Your task to perform on an android device: What's on the menu at Cheesecake Factory? Image 0: 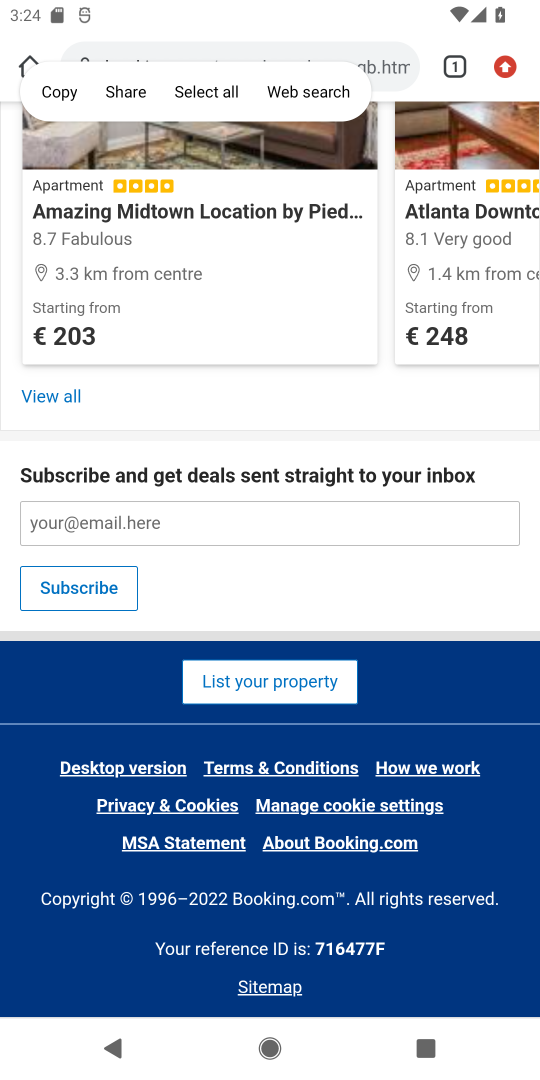
Step 0: click (387, 64)
Your task to perform on an android device: What's on the menu at Cheesecake Factory? Image 1: 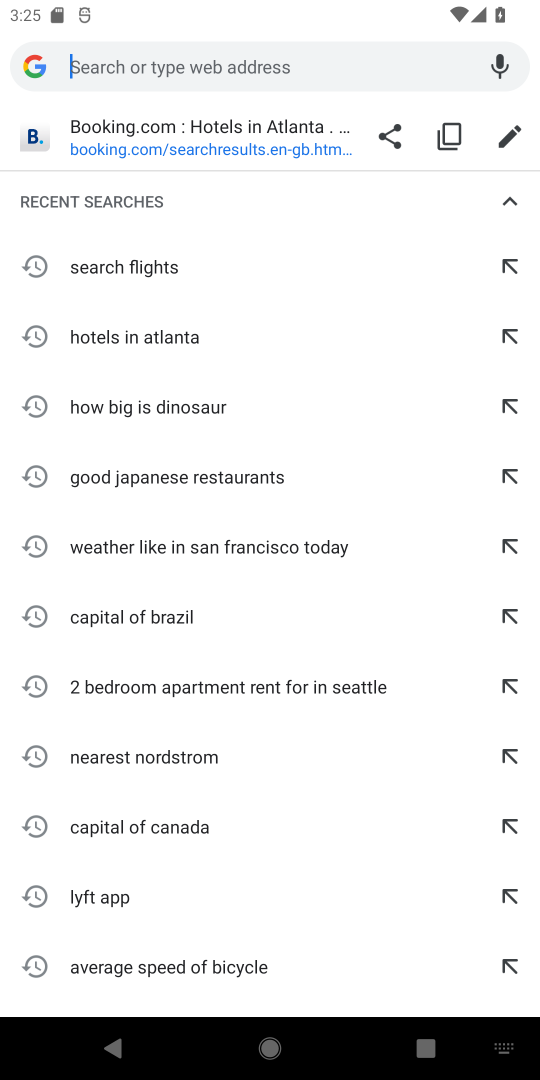
Step 1: type "cheesecake factory"
Your task to perform on an android device: What's on the menu at Cheesecake Factory? Image 2: 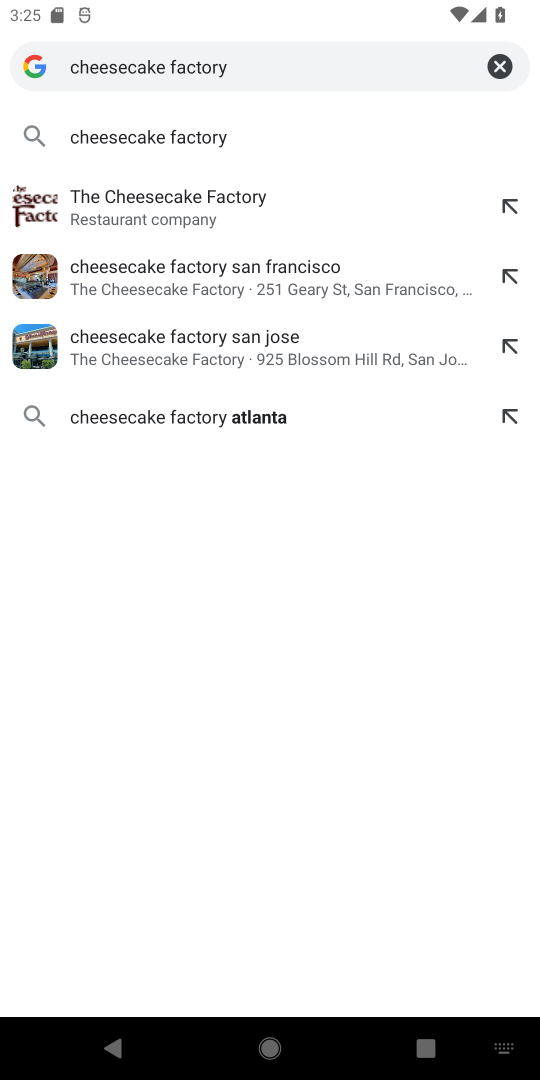
Step 2: click (182, 216)
Your task to perform on an android device: What's on the menu at Cheesecake Factory? Image 3: 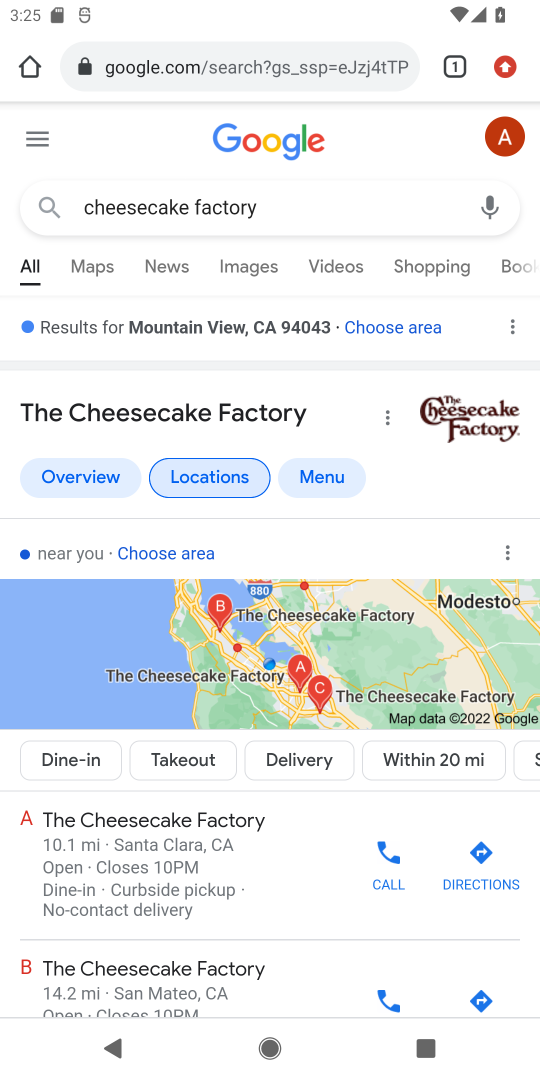
Step 3: click (135, 820)
Your task to perform on an android device: What's on the menu at Cheesecake Factory? Image 4: 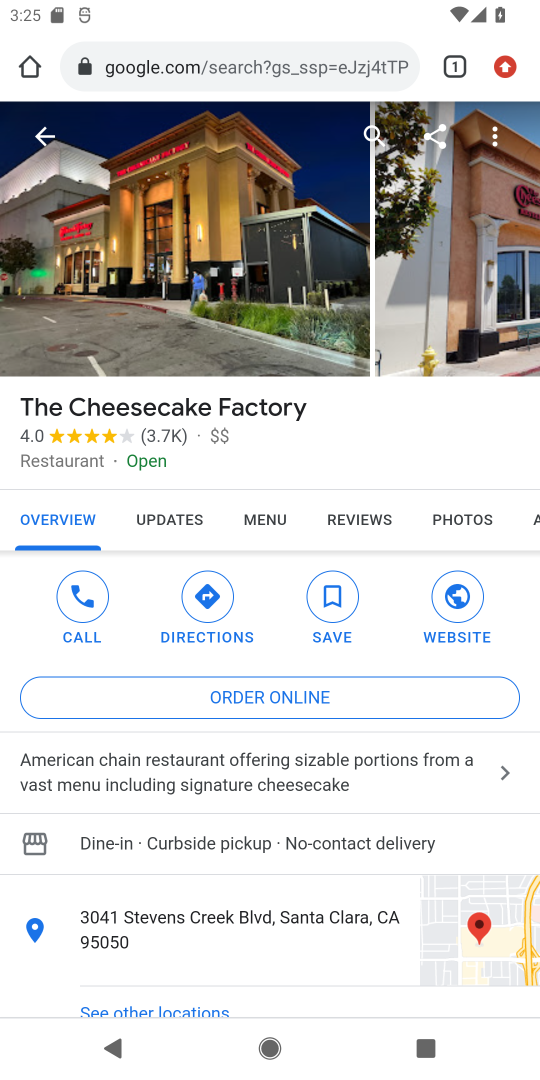
Step 4: click (266, 513)
Your task to perform on an android device: What's on the menu at Cheesecake Factory? Image 5: 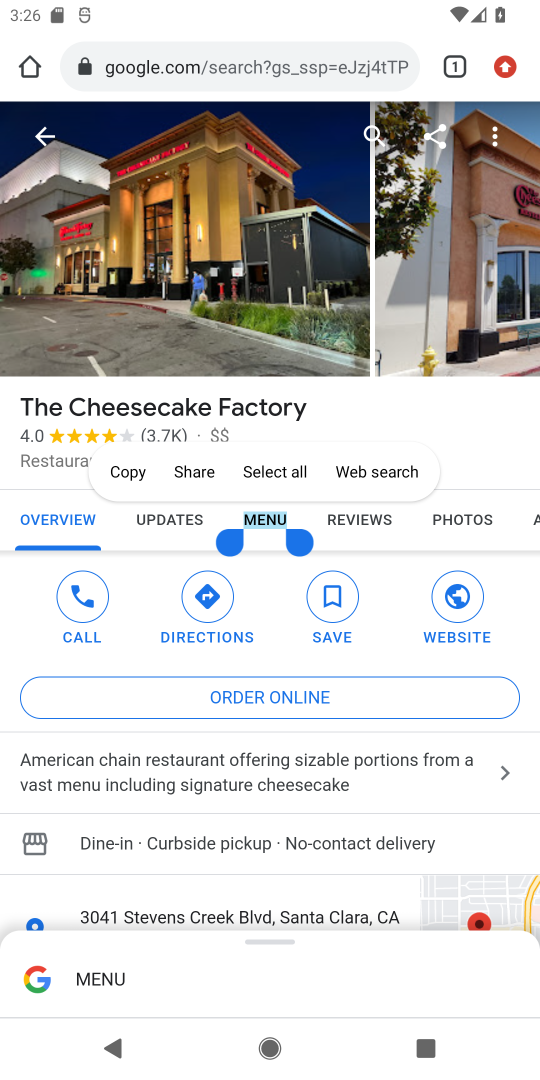
Step 5: drag from (285, 792) to (368, 226)
Your task to perform on an android device: What's on the menu at Cheesecake Factory? Image 6: 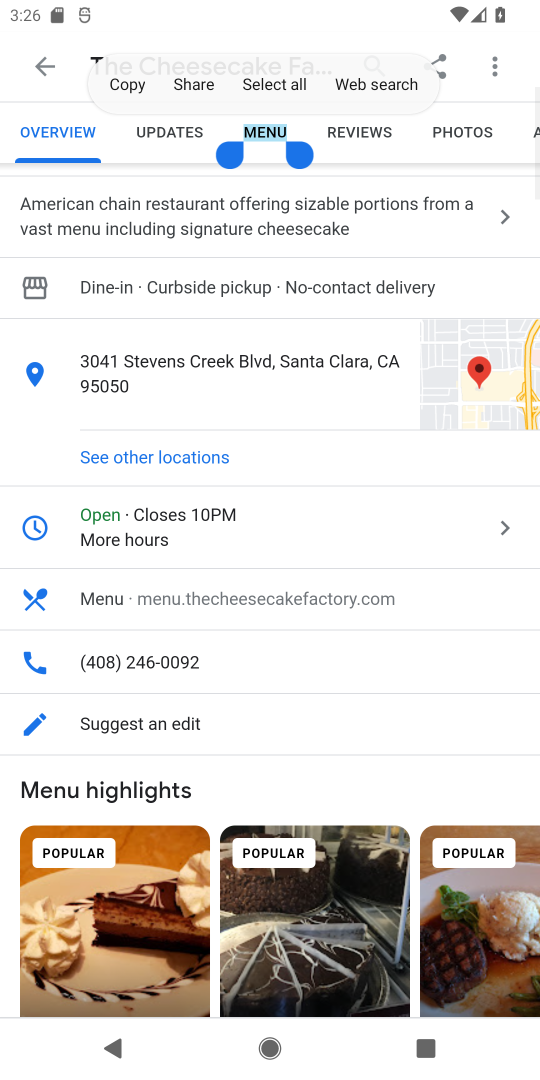
Step 6: drag from (309, 749) to (403, 215)
Your task to perform on an android device: What's on the menu at Cheesecake Factory? Image 7: 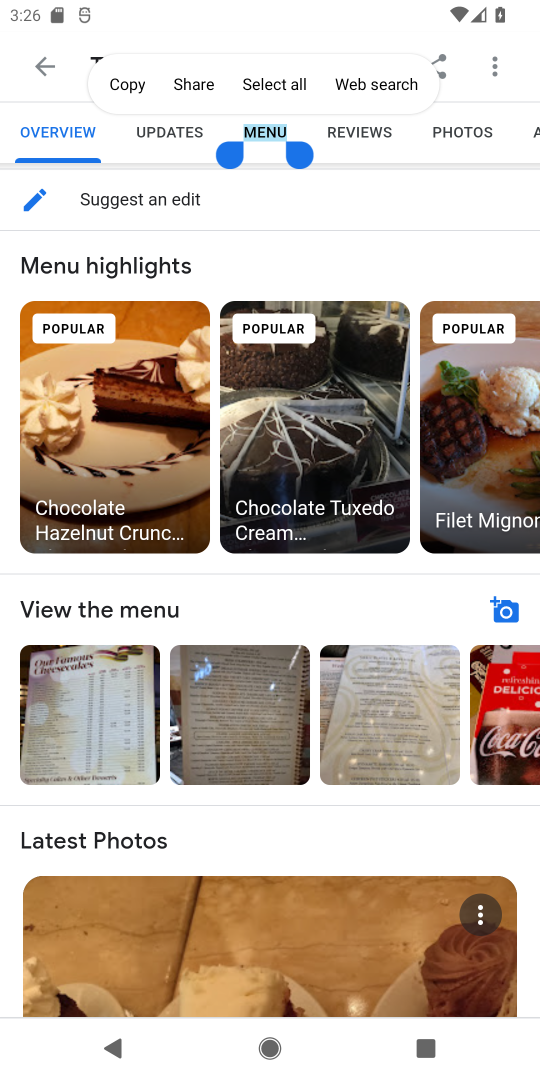
Step 7: drag from (366, 465) to (366, 389)
Your task to perform on an android device: What's on the menu at Cheesecake Factory? Image 8: 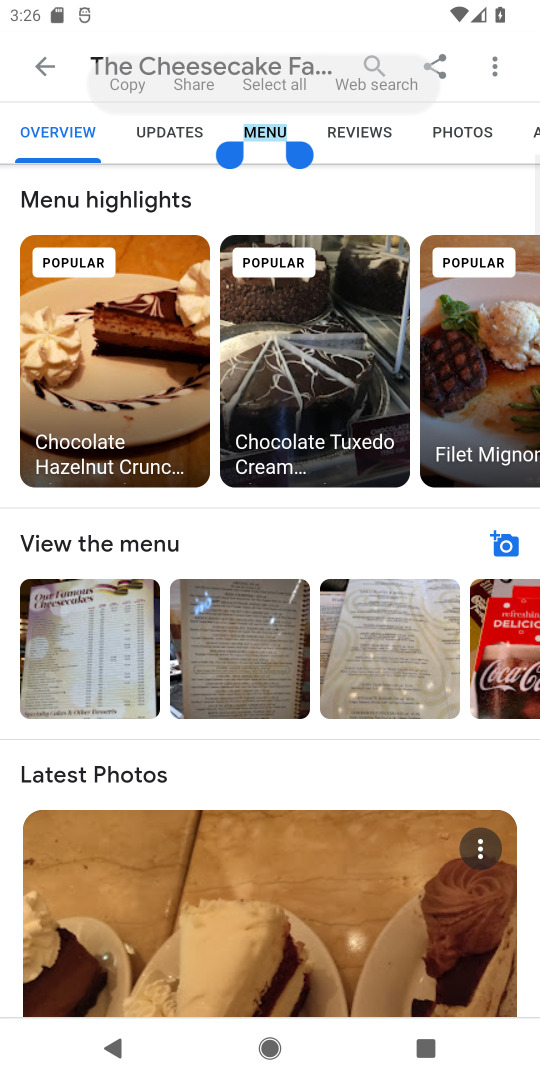
Step 8: drag from (307, 635) to (331, 461)
Your task to perform on an android device: What's on the menu at Cheesecake Factory? Image 9: 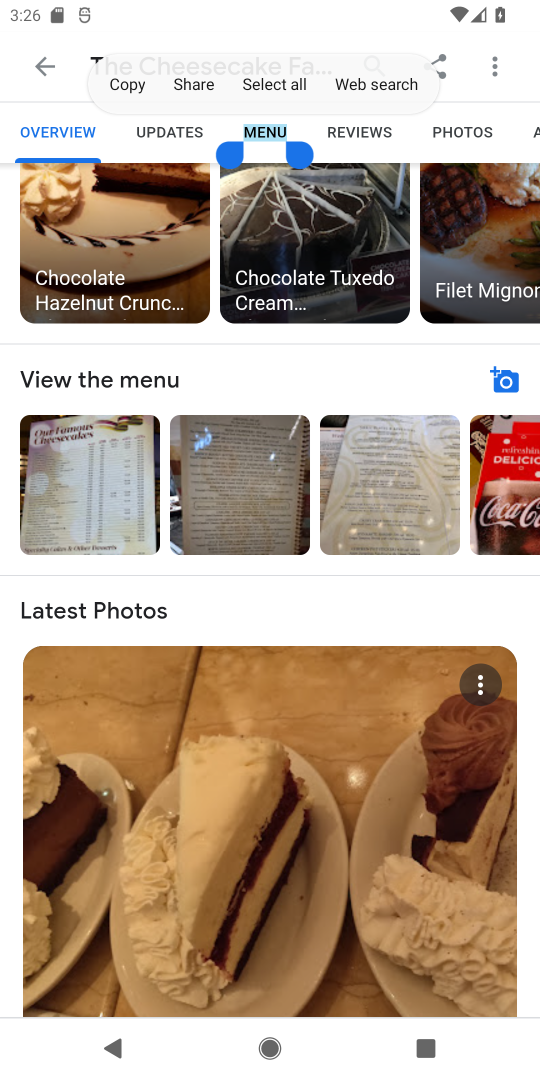
Step 9: drag from (242, 746) to (255, 441)
Your task to perform on an android device: What's on the menu at Cheesecake Factory? Image 10: 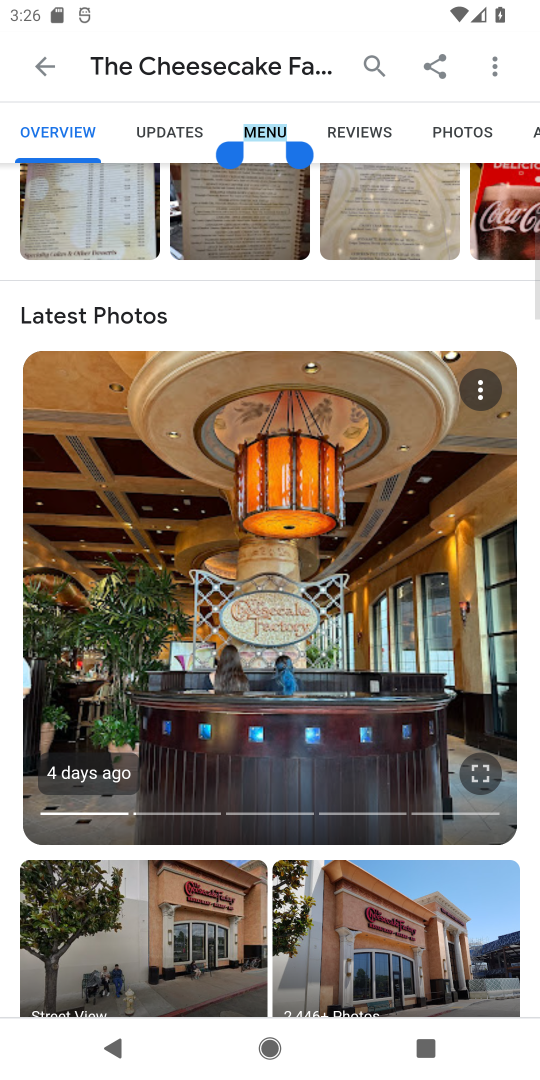
Step 10: drag from (256, 568) to (280, 332)
Your task to perform on an android device: What's on the menu at Cheesecake Factory? Image 11: 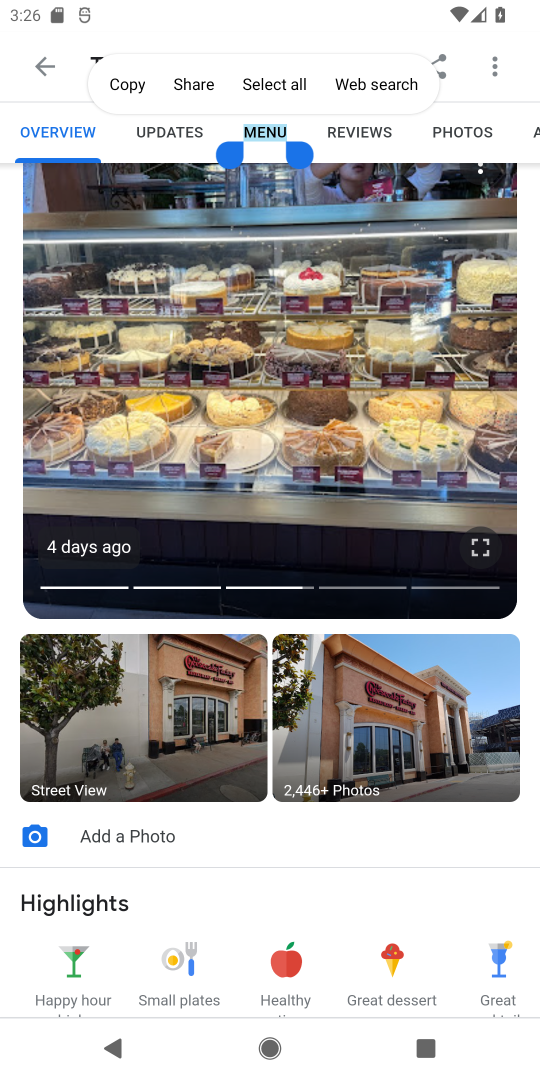
Step 11: drag from (301, 666) to (310, 1022)
Your task to perform on an android device: What's on the menu at Cheesecake Factory? Image 12: 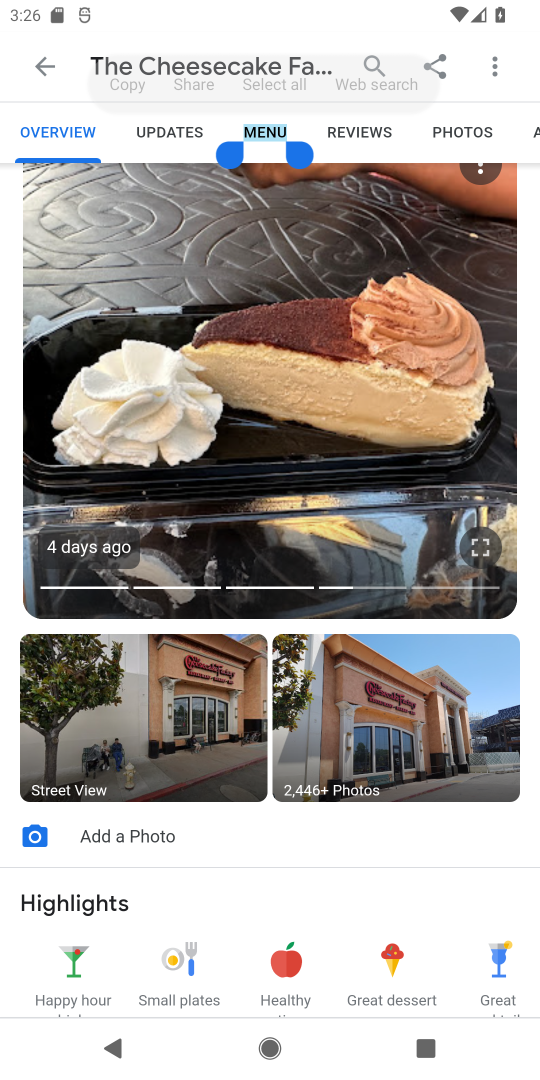
Step 12: drag from (289, 707) to (315, 1034)
Your task to perform on an android device: What's on the menu at Cheesecake Factory? Image 13: 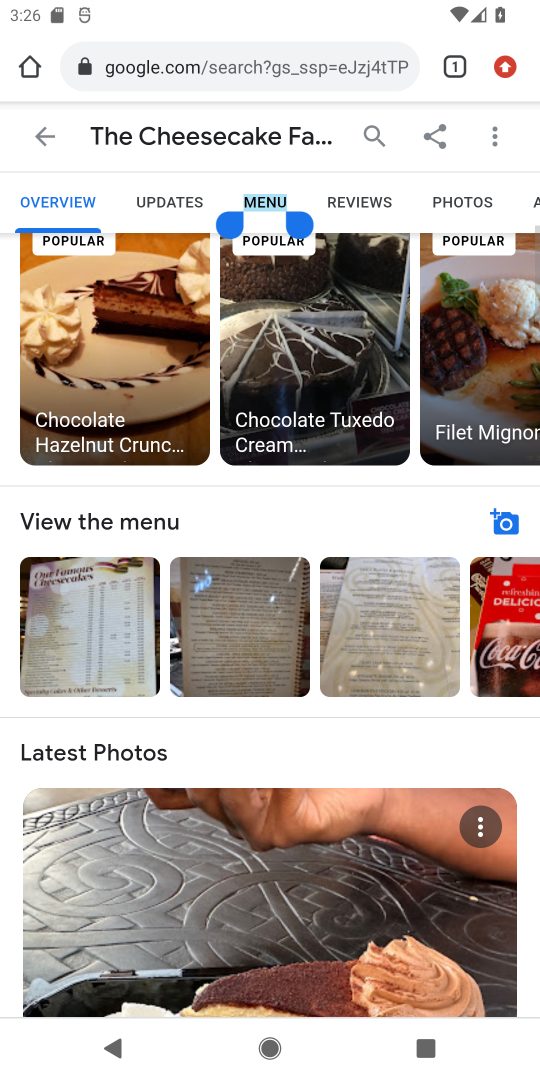
Step 13: drag from (310, 557) to (196, 1057)
Your task to perform on an android device: What's on the menu at Cheesecake Factory? Image 14: 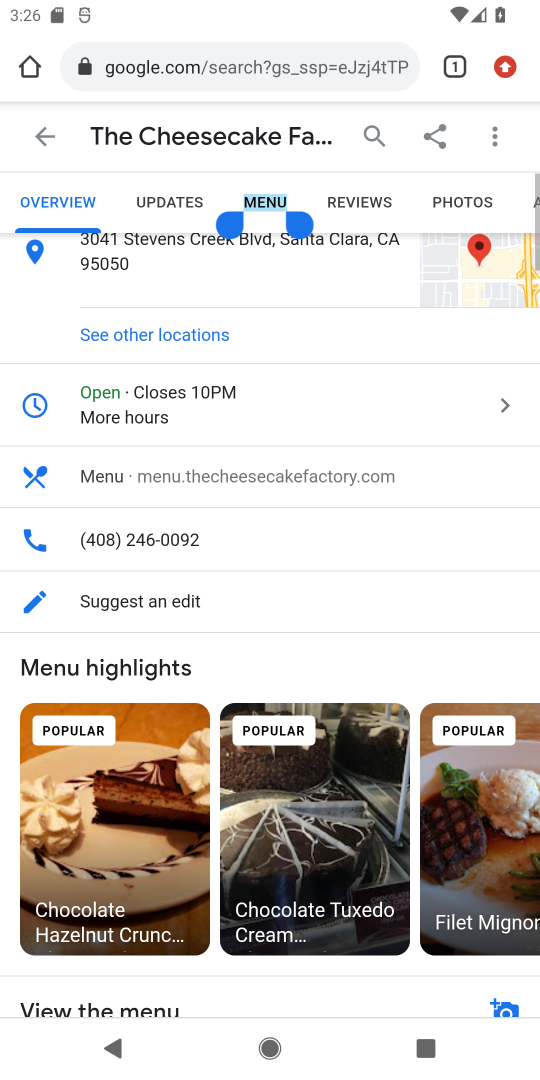
Step 14: drag from (339, 685) to (354, 1064)
Your task to perform on an android device: What's on the menu at Cheesecake Factory? Image 15: 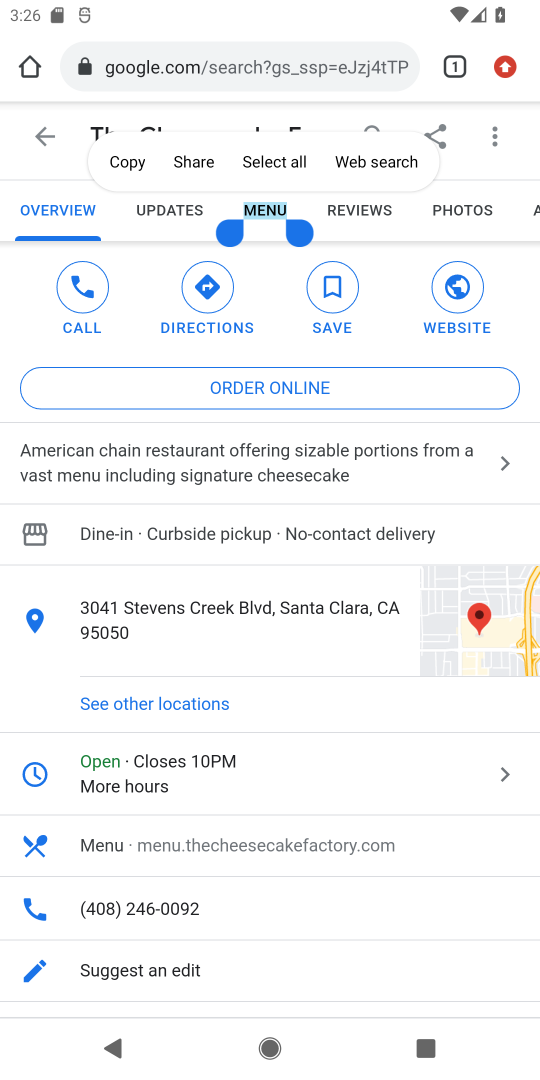
Step 15: click (208, 845)
Your task to perform on an android device: What's on the menu at Cheesecake Factory? Image 16: 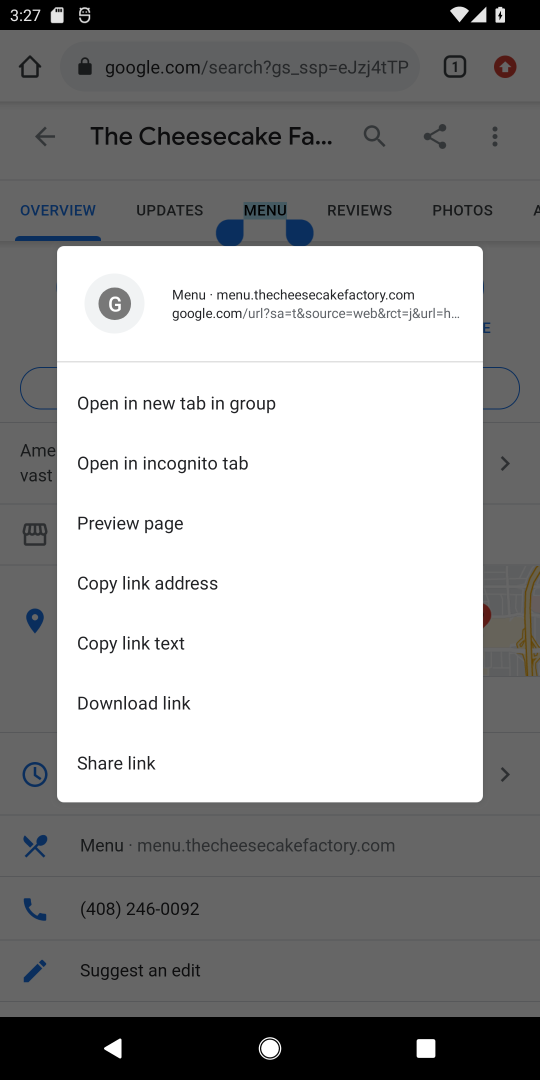
Step 16: drag from (539, 796) to (538, 735)
Your task to perform on an android device: What's on the menu at Cheesecake Factory? Image 17: 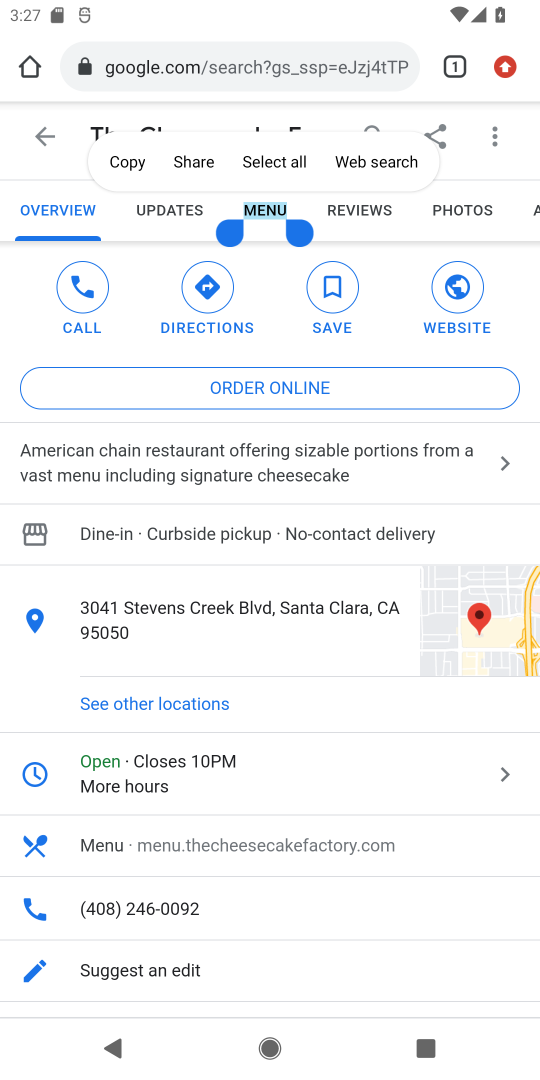
Step 17: drag from (351, 875) to (364, 281)
Your task to perform on an android device: What's on the menu at Cheesecake Factory? Image 18: 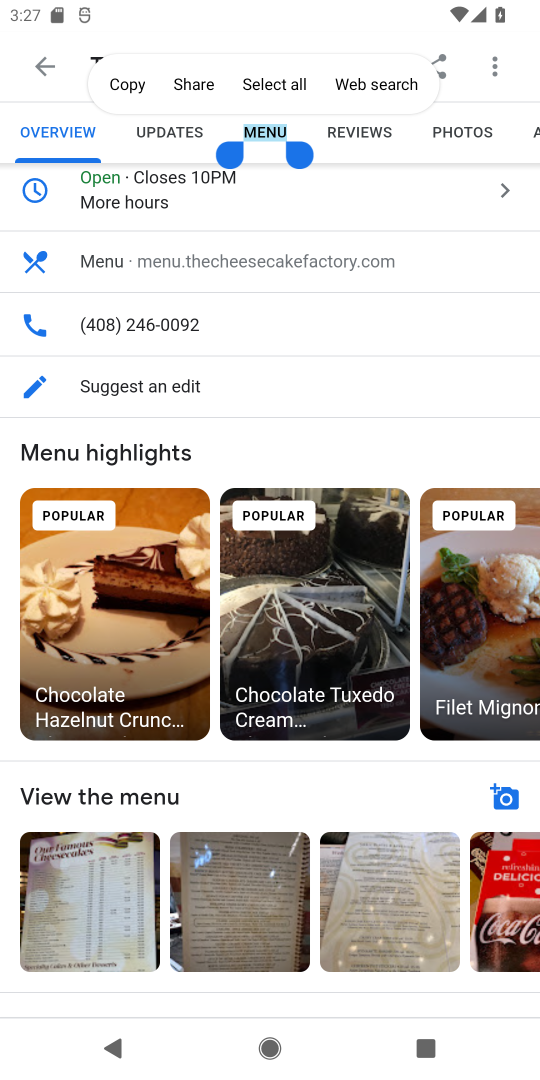
Step 18: click (377, 512)
Your task to perform on an android device: What's on the menu at Cheesecake Factory? Image 19: 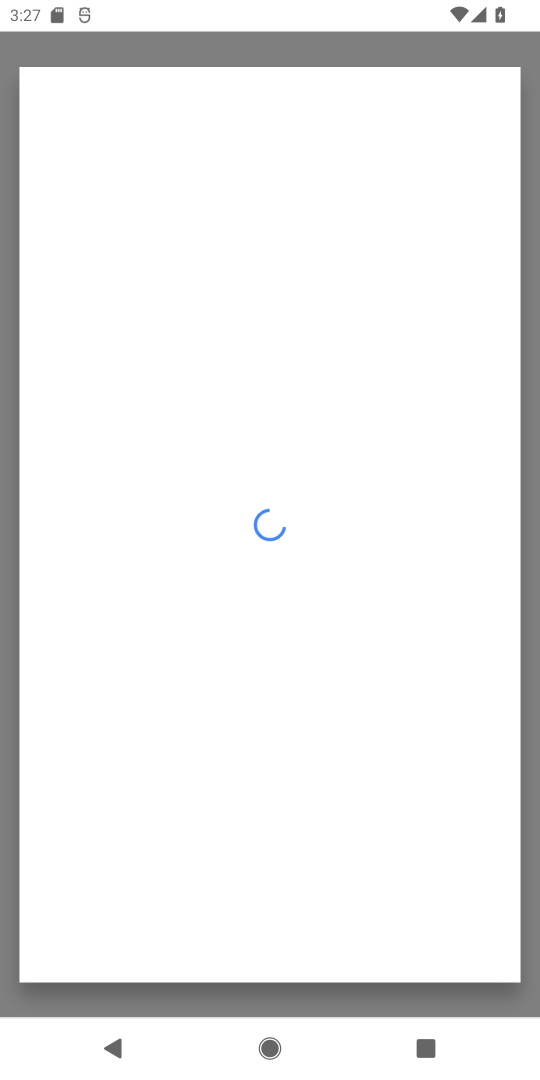
Step 19: task complete